Your task to perform on an android device: Check the weather Image 0: 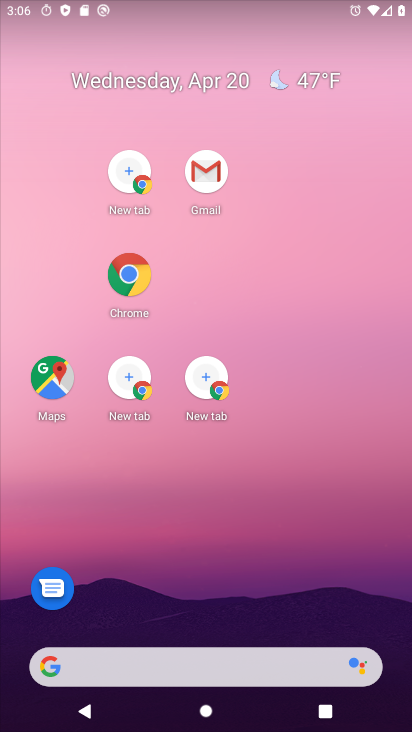
Step 0: drag from (246, 499) to (265, 281)
Your task to perform on an android device: Check the weather Image 1: 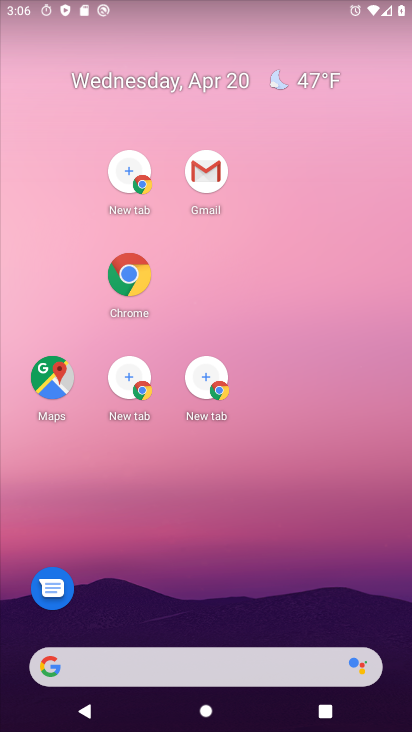
Step 1: drag from (28, 374) to (383, 551)
Your task to perform on an android device: Check the weather Image 2: 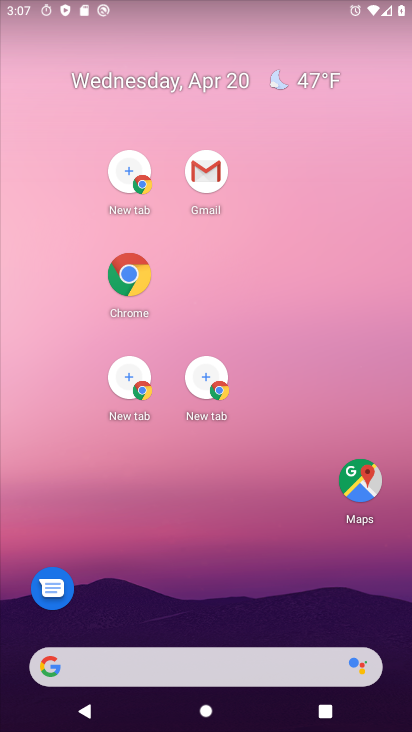
Step 2: drag from (55, 321) to (376, 294)
Your task to perform on an android device: Check the weather Image 3: 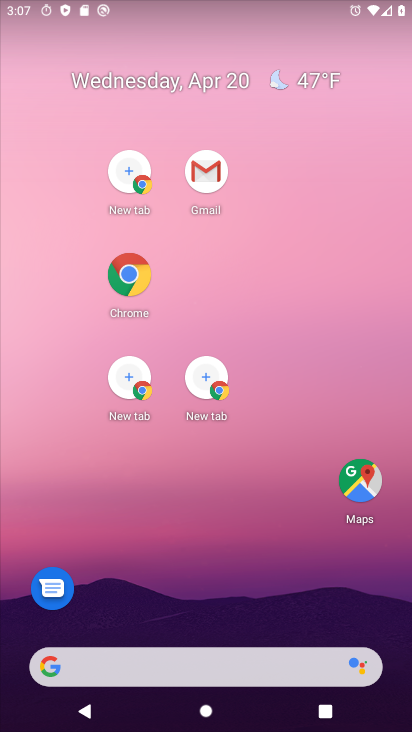
Step 3: drag from (54, 311) to (408, 641)
Your task to perform on an android device: Check the weather Image 4: 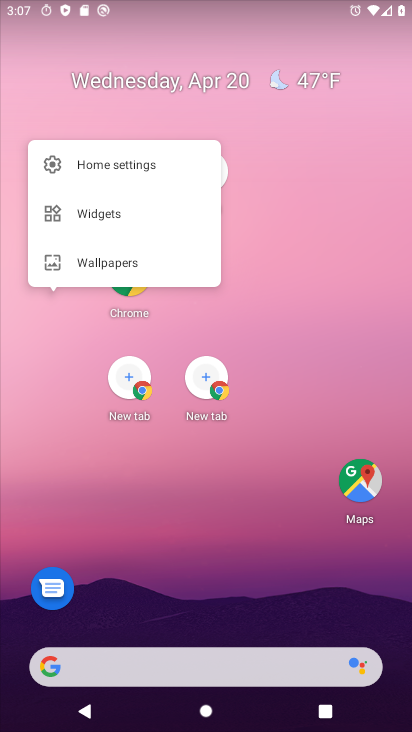
Step 4: drag from (43, 331) to (351, 399)
Your task to perform on an android device: Check the weather Image 5: 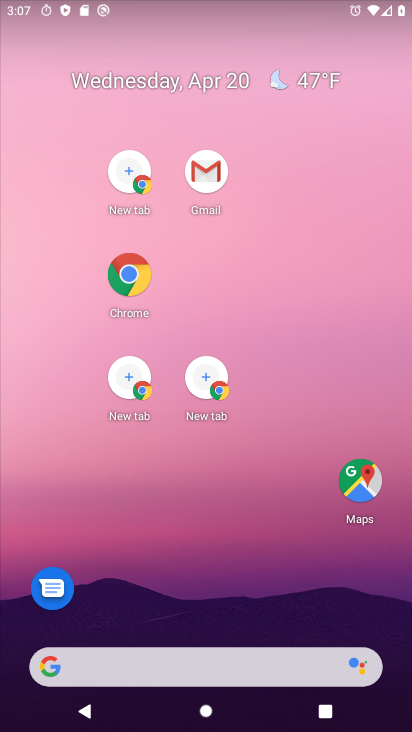
Step 5: click (296, 388)
Your task to perform on an android device: Check the weather Image 6: 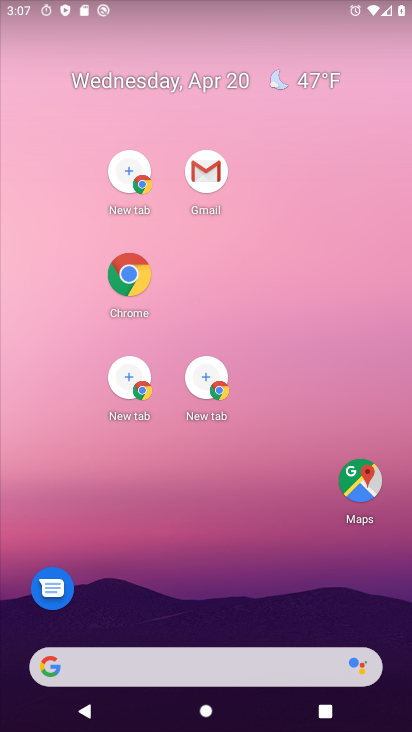
Step 6: click (364, 392)
Your task to perform on an android device: Check the weather Image 7: 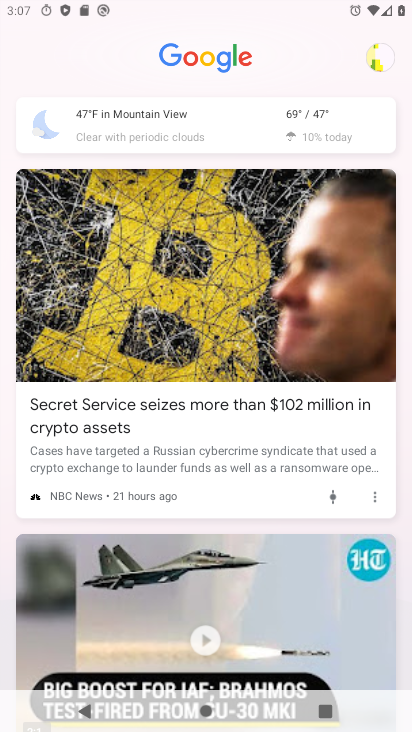
Step 7: click (308, 112)
Your task to perform on an android device: Check the weather Image 8: 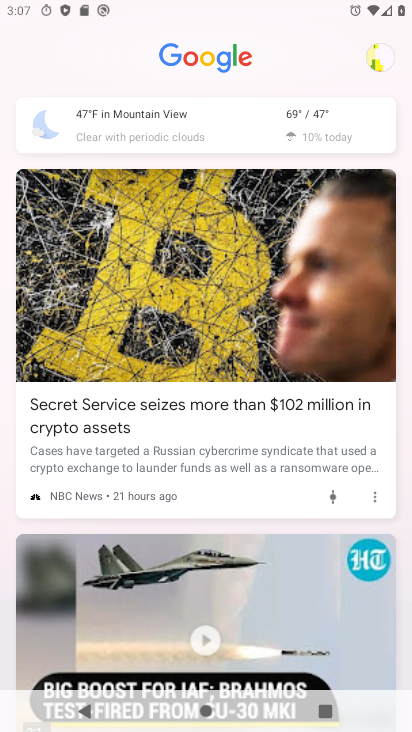
Step 8: click (298, 111)
Your task to perform on an android device: Check the weather Image 9: 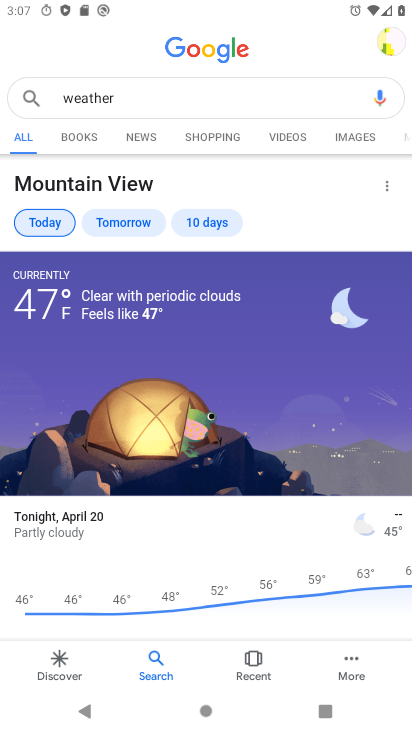
Step 9: task complete